Your task to perform on an android device: toggle translation in the chrome app Image 0: 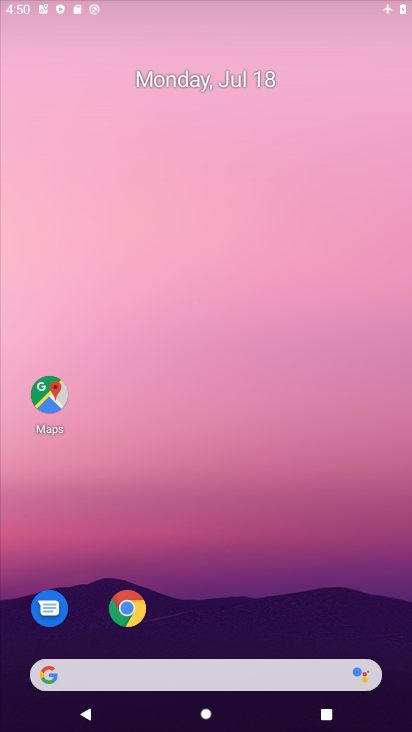
Step 0: drag from (255, 598) to (235, 79)
Your task to perform on an android device: toggle translation in the chrome app Image 1: 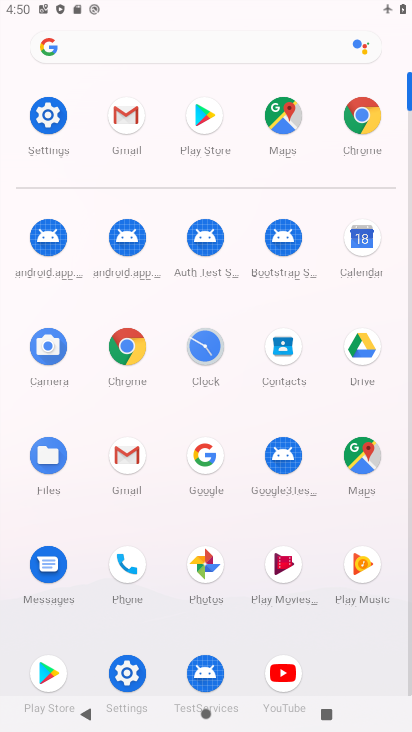
Step 1: click (125, 347)
Your task to perform on an android device: toggle translation in the chrome app Image 2: 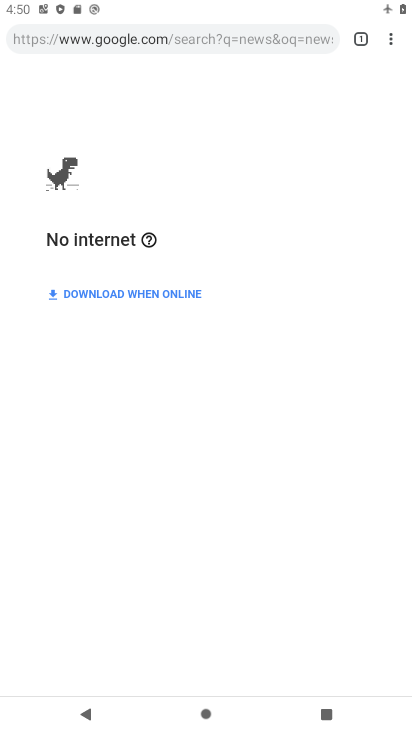
Step 2: drag from (393, 33) to (237, 423)
Your task to perform on an android device: toggle translation in the chrome app Image 3: 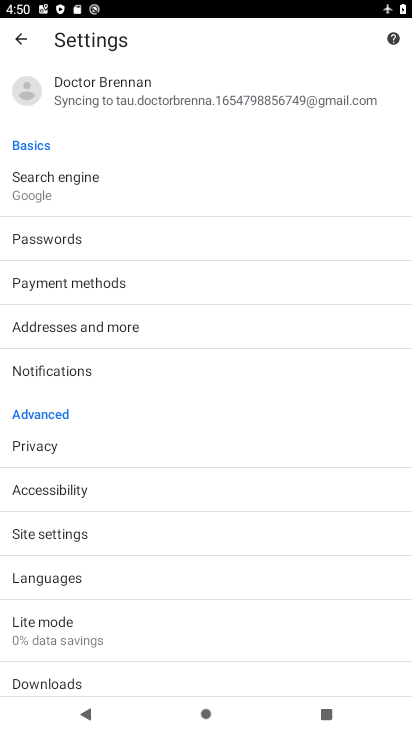
Step 3: click (54, 585)
Your task to perform on an android device: toggle translation in the chrome app Image 4: 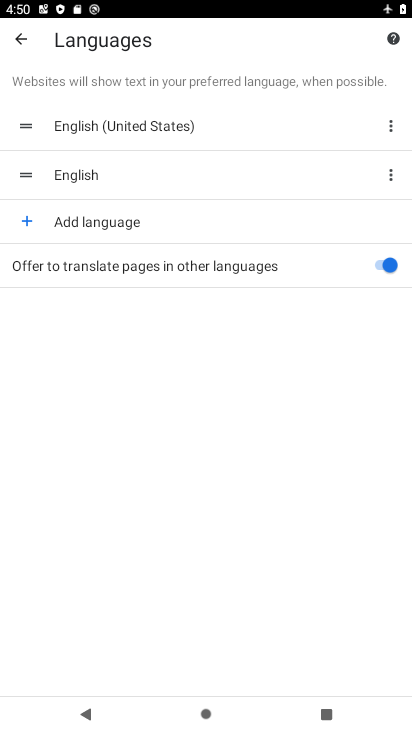
Step 4: click (380, 261)
Your task to perform on an android device: toggle translation in the chrome app Image 5: 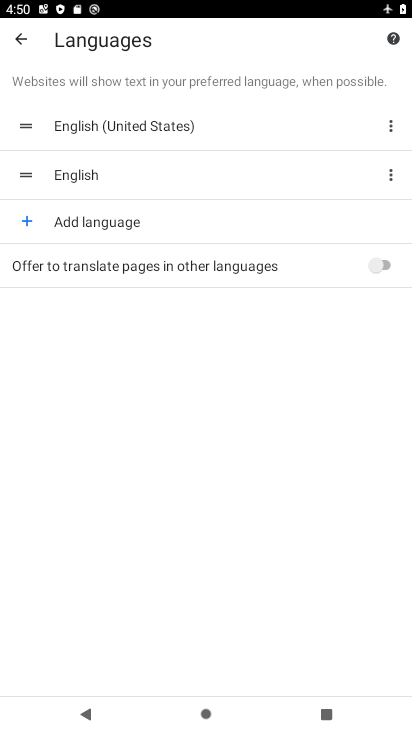
Step 5: task complete